Your task to perform on an android device: Do I have any events this weekend? Image 0: 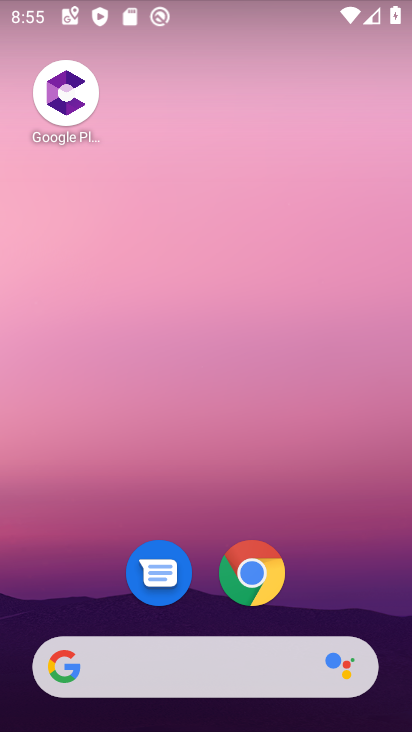
Step 0: drag from (373, 597) to (384, 208)
Your task to perform on an android device: Do I have any events this weekend? Image 1: 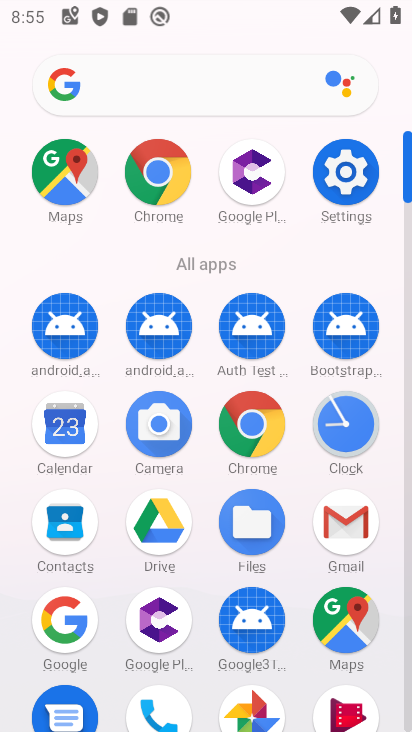
Step 1: click (70, 436)
Your task to perform on an android device: Do I have any events this weekend? Image 2: 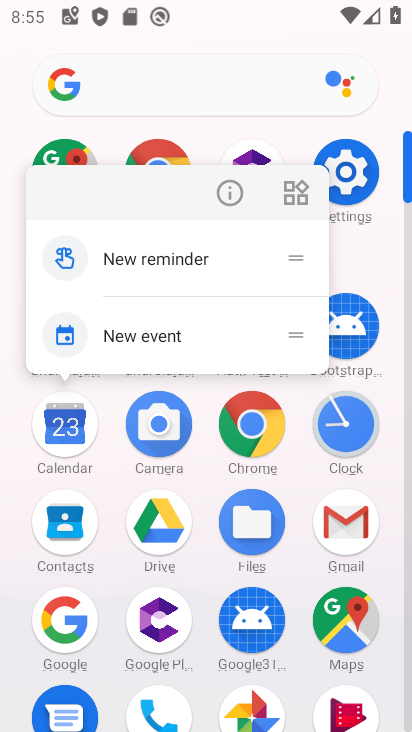
Step 2: click (71, 436)
Your task to perform on an android device: Do I have any events this weekend? Image 3: 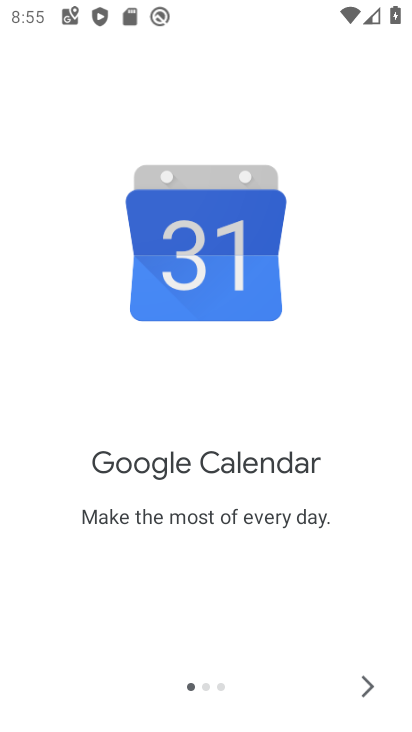
Step 3: click (369, 692)
Your task to perform on an android device: Do I have any events this weekend? Image 4: 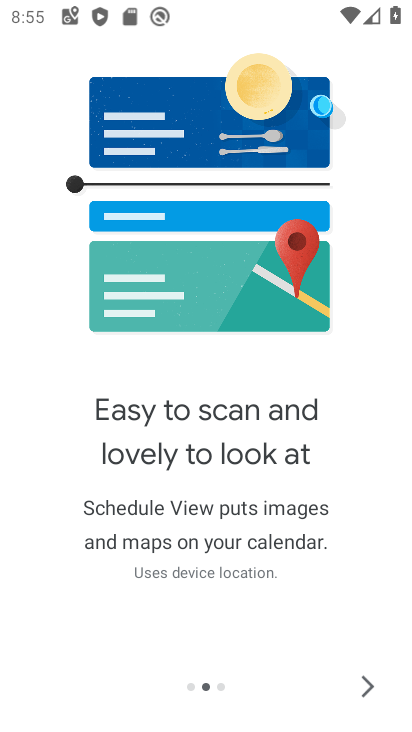
Step 4: click (373, 692)
Your task to perform on an android device: Do I have any events this weekend? Image 5: 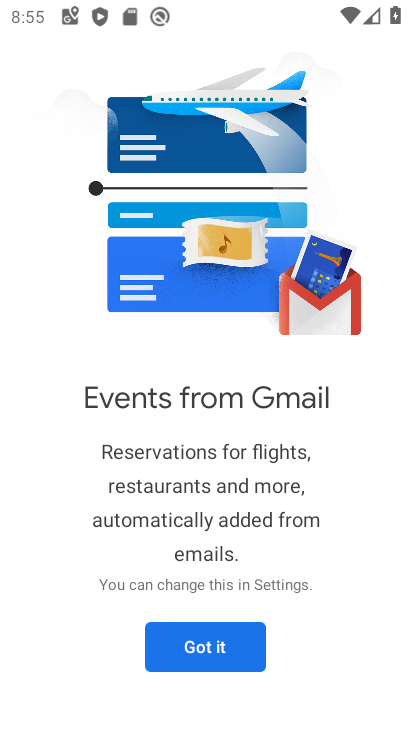
Step 5: click (242, 656)
Your task to perform on an android device: Do I have any events this weekend? Image 6: 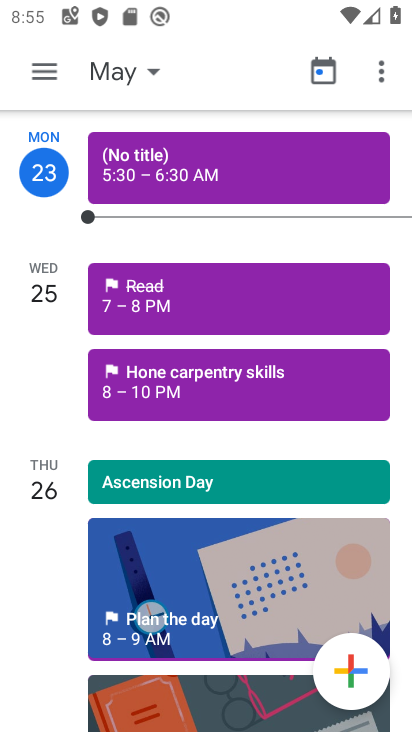
Step 6: drag from (255, 610) to (276, 427)
Your task to perform on an android device: Do I have any events this weekend? Image 7: 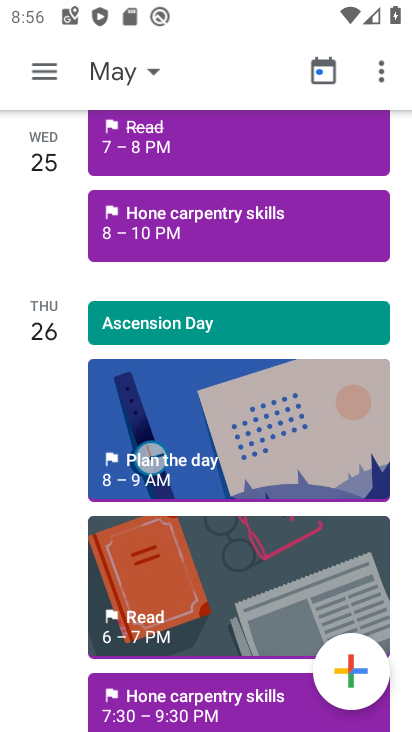
Step 7: drag from (273, 559) to (279, 435)
Your task to perform on an android device: Do I have any events this weekend? Image 8: 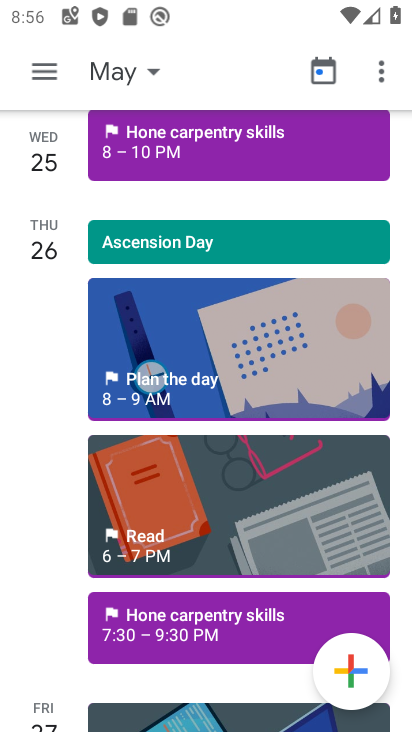
Step 8: drag from (293, 573) to (300, 414)
Your task to perform on an android device: Do I have any events this weekend? Image 9: 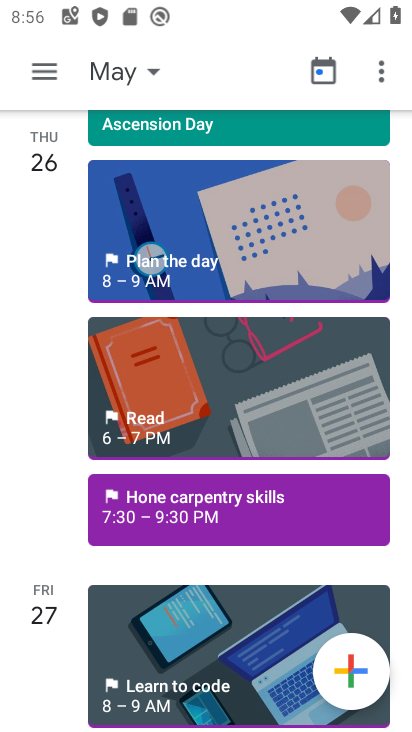
Step 9: drag from (301, 615) to (322, 395)
Your task to perform on an android device: Do I have any events this weekend? Image 10: 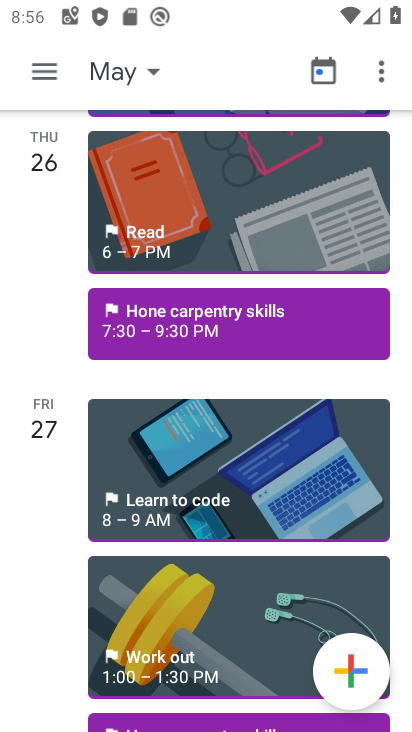
Step 10: drag from (273, 624) to (266, 370)
Your task to perform on an android device: Do I have any events this weekend? Image 11: 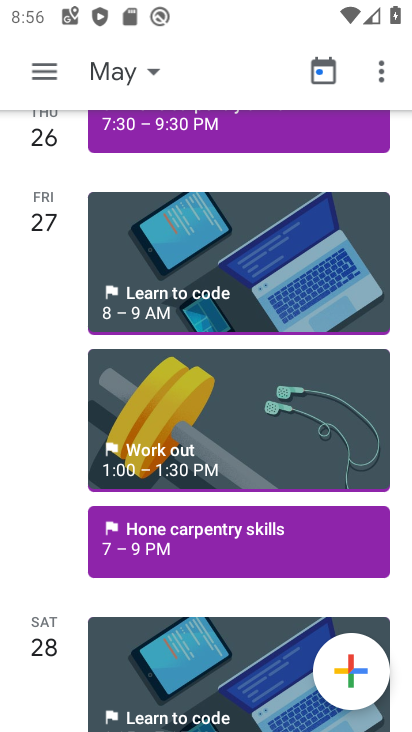
Step 11: drag from (253, 566) to (264, 340)
Your task to perform on an android device: Do I have any events this weekend? Image 12: 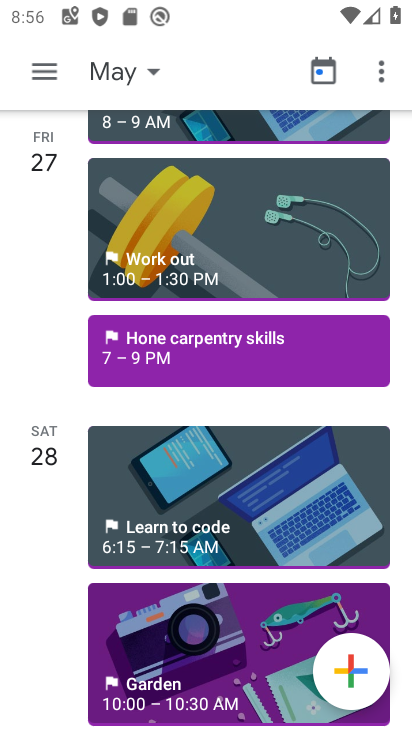
Step 12: click (252, 505)
Your task to perform on an android device: Do I have any events this weekend? Image 13: 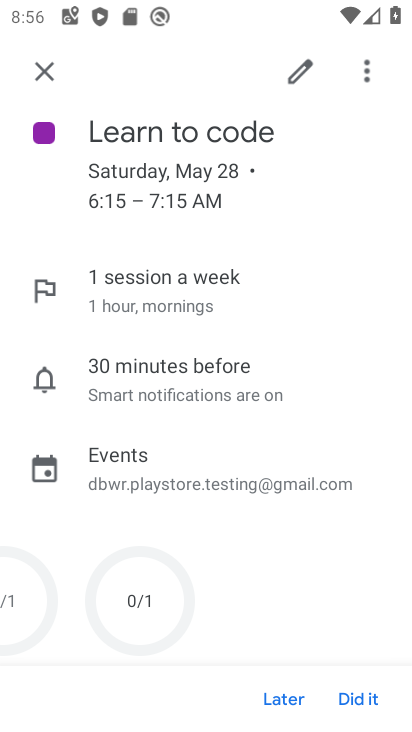
Step 13: task complete